Your task to perform on an android device: empty trash in google photos Image 0: 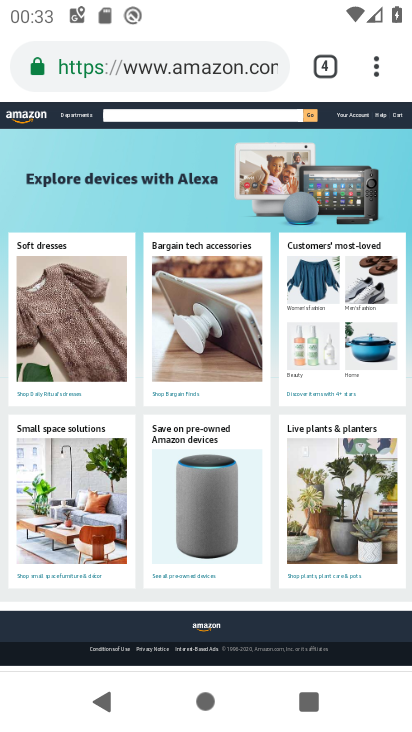
Step 0: press home button
Your task to perform on an android device: empty trash in google photos Image 1: 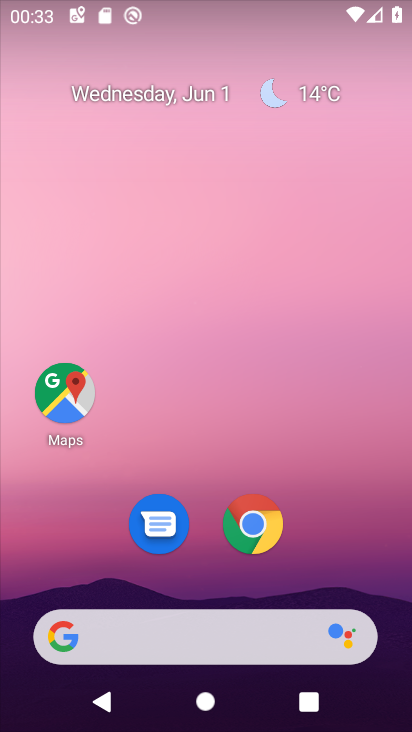
Step 1: drag from (313, 539) to (240, 54)
Your task to perform on an android device: empty trash in google photos Image 2: 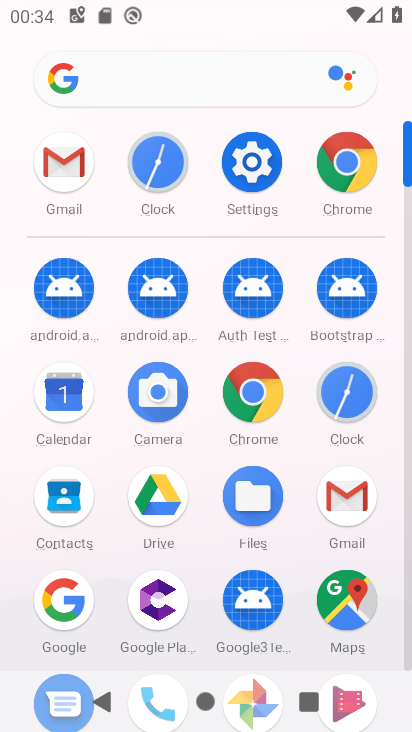
Step 2: drag from (207, 438) to (200, 97)
Your task to perform on an android device: empty trash in google photos Image 3: 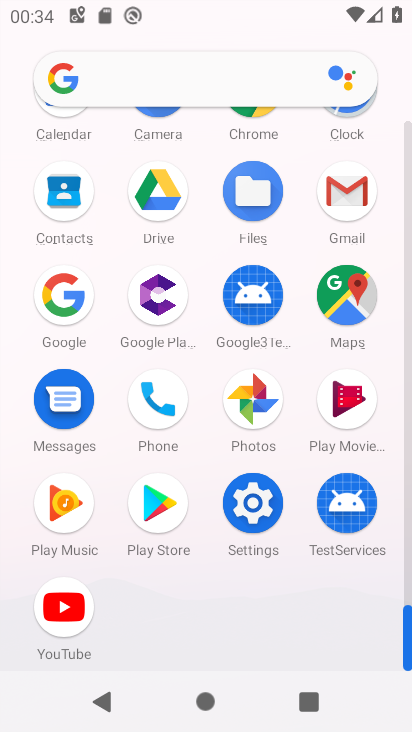
Step 3: click (259, 405)
Your task to perform on an android device: empty trash in google photos Image 4: 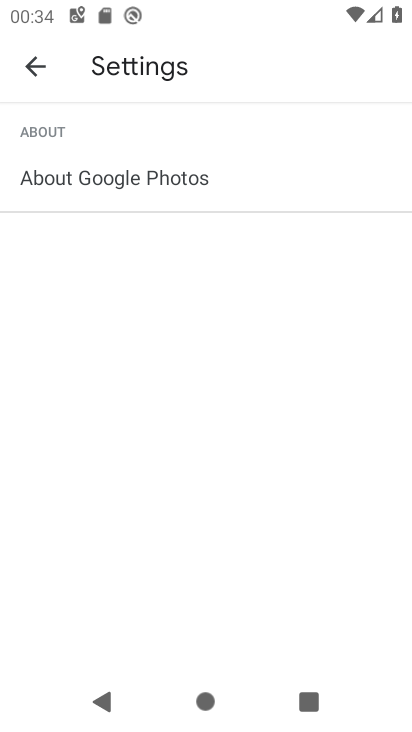
Step 4: click (38, 58)
Your task to perform on an android device: empty trash in google photos Image 5: 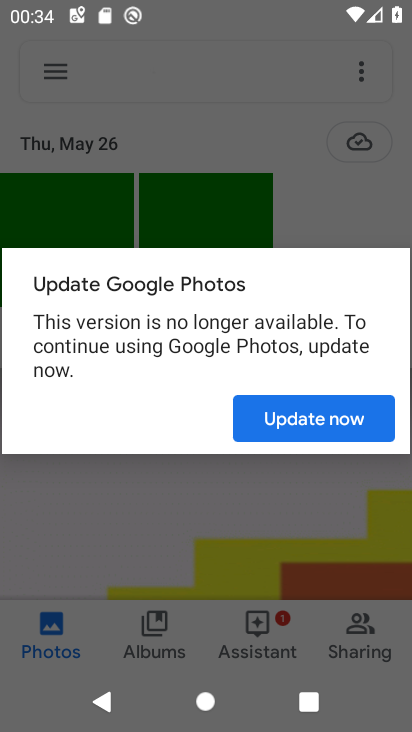
Step 5: click (278, 417)
Your task to perform on an android device: empty trash in google photos Image 6: 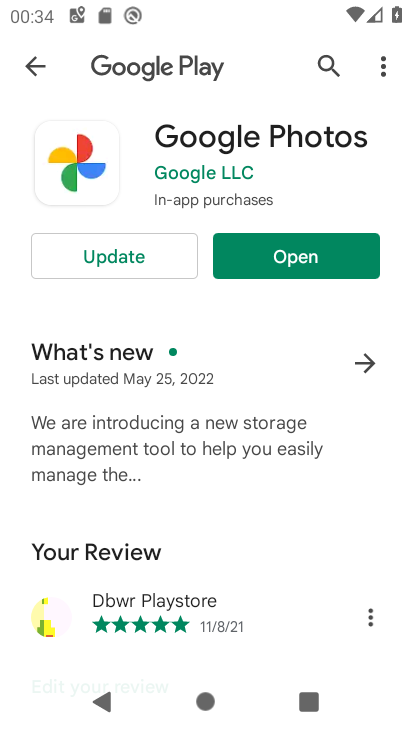
Step 6: click (330, 259)
Your task to perform on an android device: empty trash in google photos Image 7: 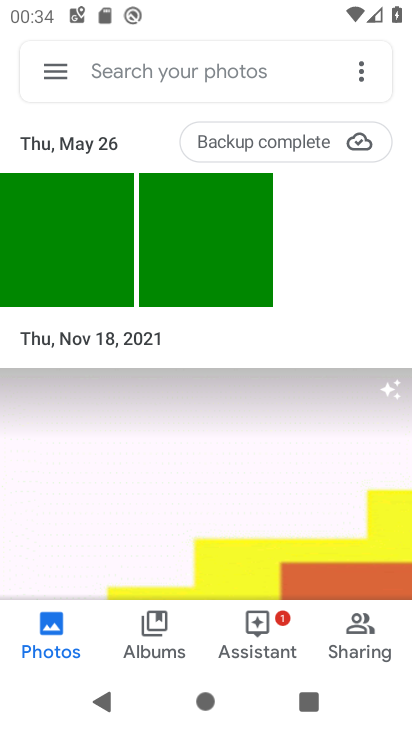
Step 7: click (51, 66)
Your task to perform on an android device: empty trash in google photos Image 8: 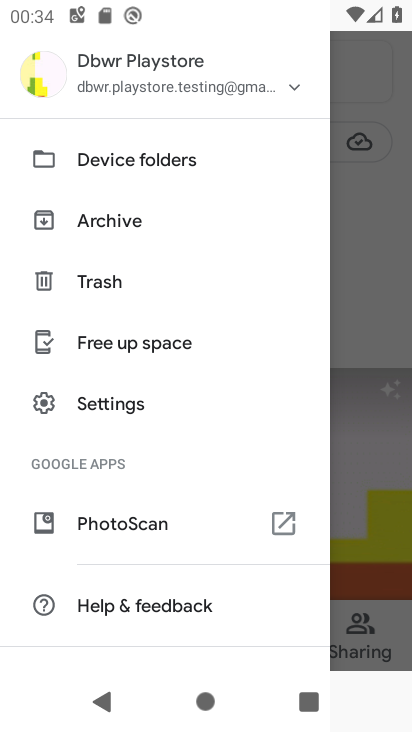
Step 8: click (96, 277)
Your task to perform on an android device: empty trash in google photos Image 9: 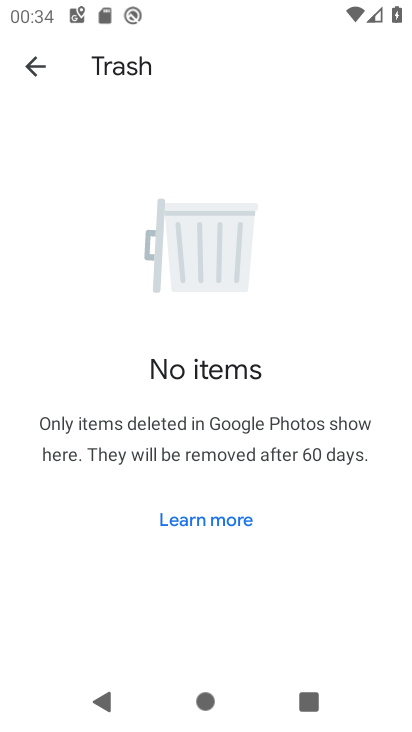
Step 9: task complete